Your task to perform on an android device: turn off sleep mode Image 0: 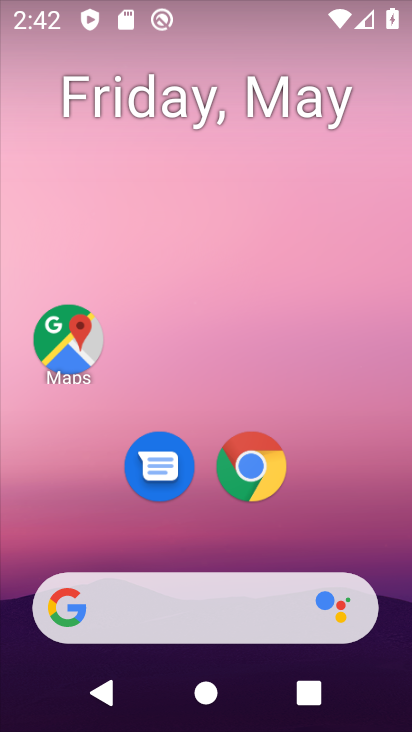
Step 0: drag from (201, 538) to (214, 31)
Your task to perform on an android device: turn off sleep mode Image 1: 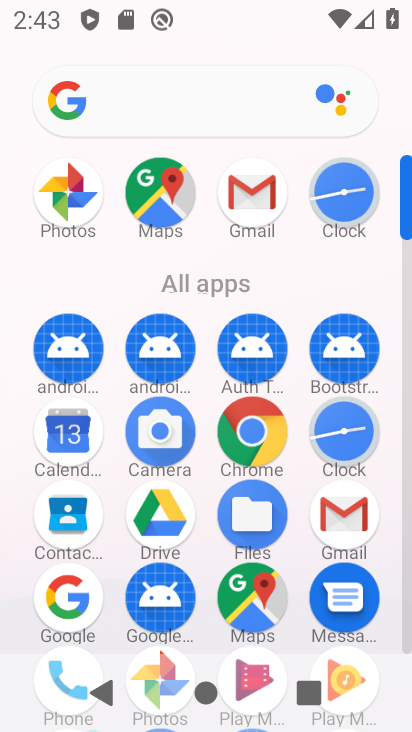
Step 1: drag from (202, 563) to (205, 3)
Your task to perform on an android device: turn off sleep mode Image 2: 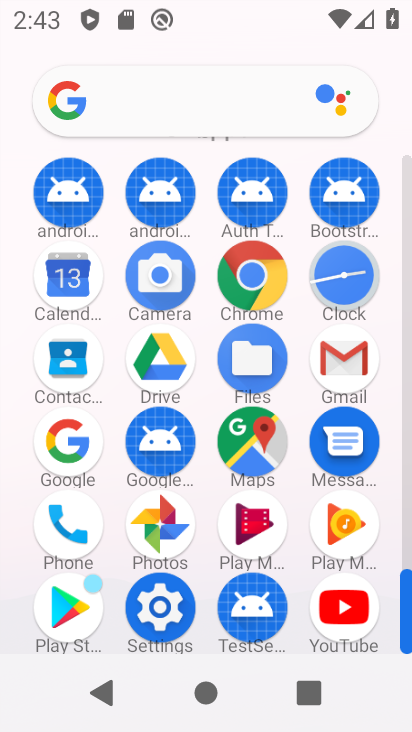
Step 2: click (158, 600)
Your task to perform on an android device: turn off sleep mode Image 3: 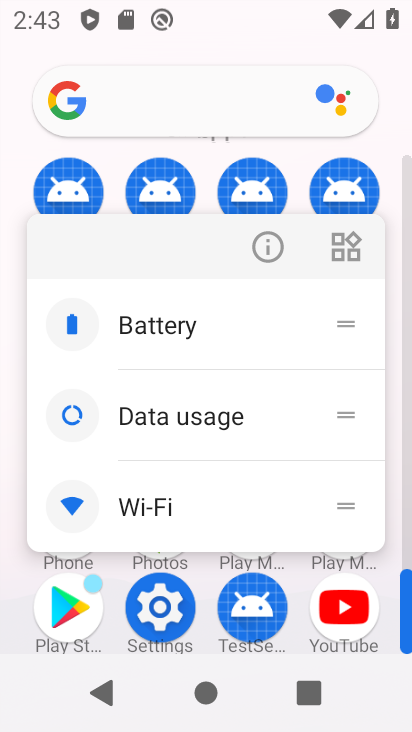
Step 3: click (153, 598)
Your task to perform on an android device: turn off sleep mode Image 4: 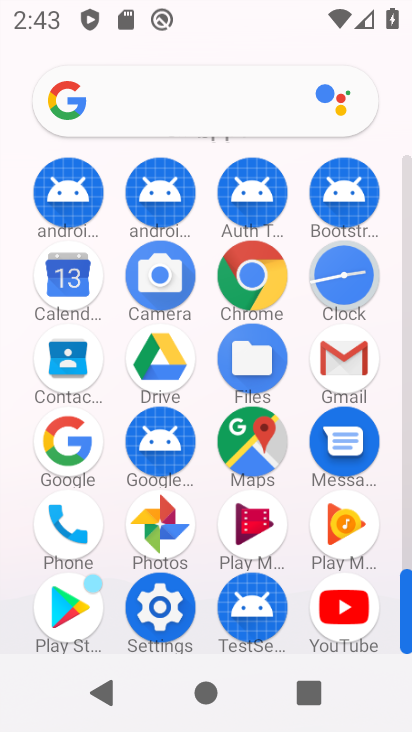
Step 4: click (154, 603)
Your task to perform on an android device: turn off sleep mode Image 5: 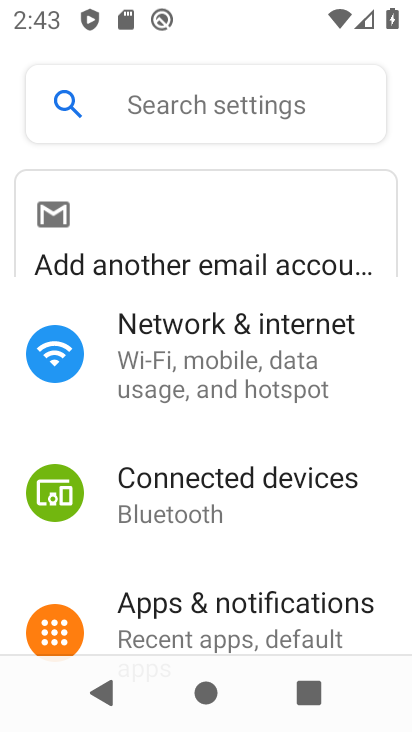
Step 5: click (160, 606)
Your task to perform on an android device: turn off sleep mode Image 6: 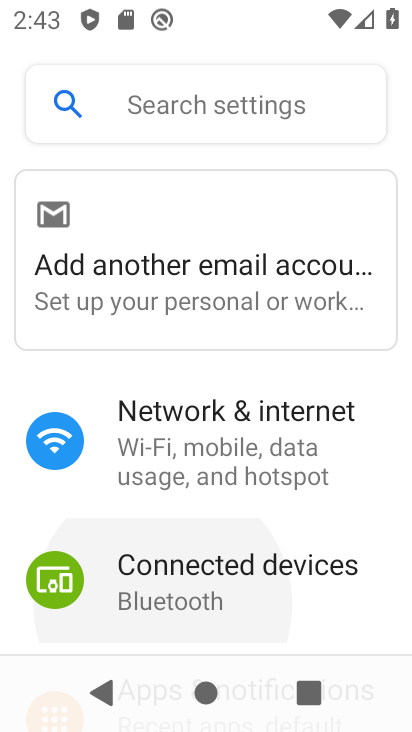
Step 6: drag from (162, 531) to (182, 143)
Your task to perform on an android device: turn off sleep mode Image 7: 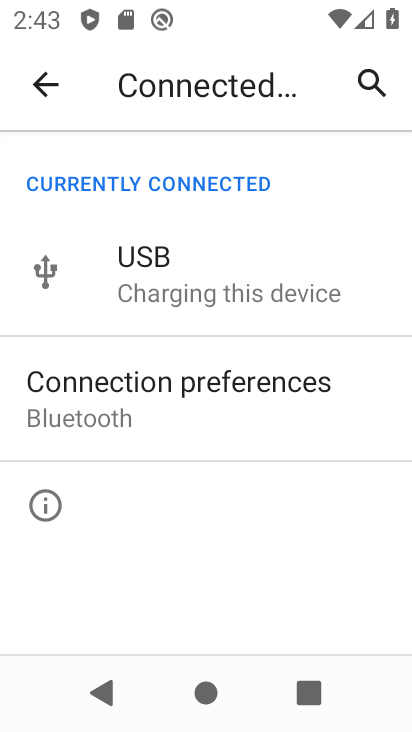
Step 7: click (39, 80)
Your task to perform on an android device: turn off sleep mode Image 8: 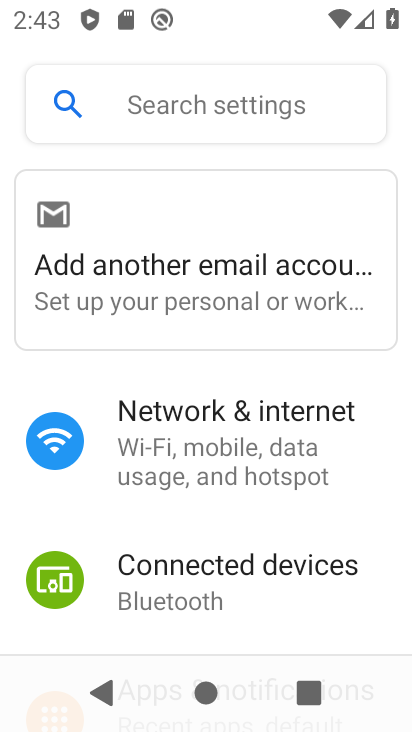
Step 8: drag from (183, 590) to (192, 109)
Your task to perform on an android device: turn off sleep mode Image 9: 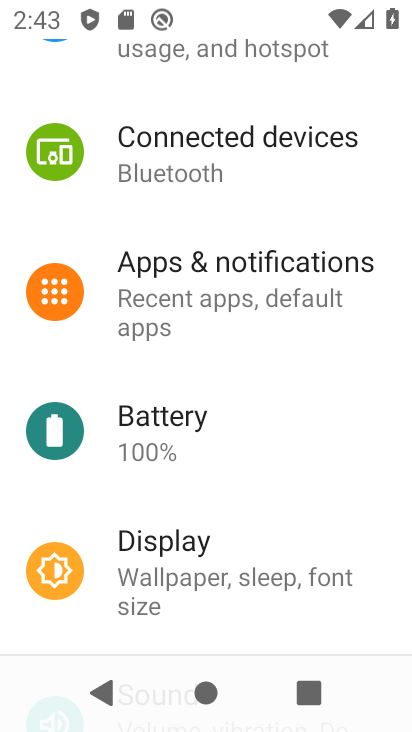
Step 9: click (169, 538)
Your task to perform on an android device: turn off sleep mode Image 10: 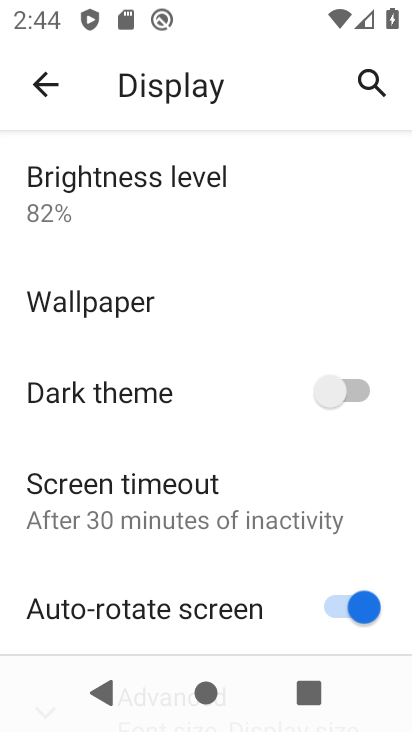
Step 10: drag from (196, 547) to (203, 223)
Your task to perform on an android device: turn off sleep mode Image 11: 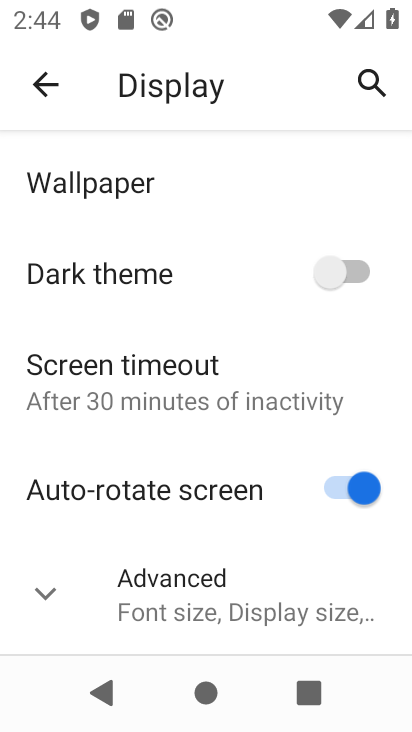
Step 11: click (53, 589)
Your task to perform on an android device: turn off sleep mode Image 12: 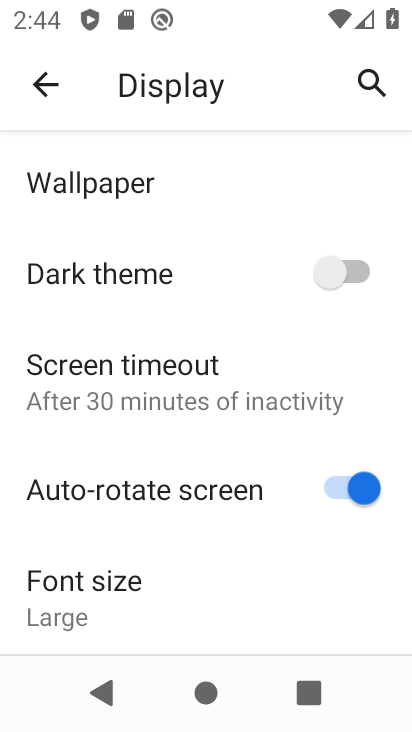
Step 12: task complete